Your task to perform on an android device: move a message to another label in the gmail app Image 0: 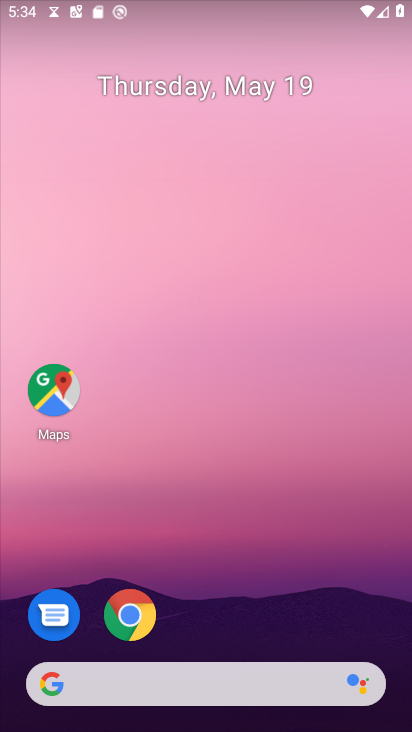
Step 0: drag from (281, 671) to (267, 15)
Your task to perform on an android device: move a message to another label in the gmail app Image 1: 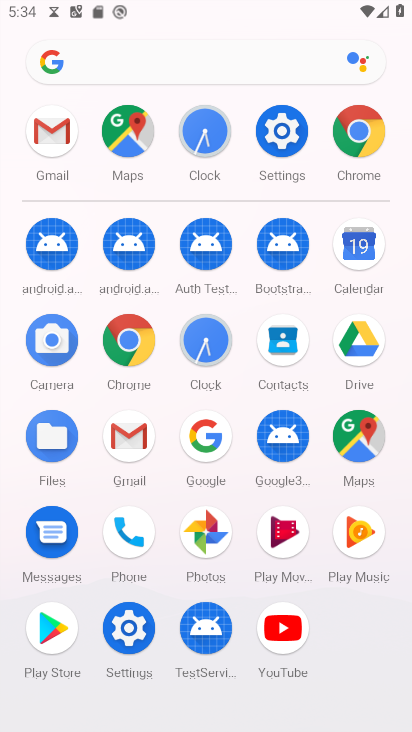
Step 1: click (131, 428)
Your task to perform on an android device: move a message to another label in the gmail app Image 2: 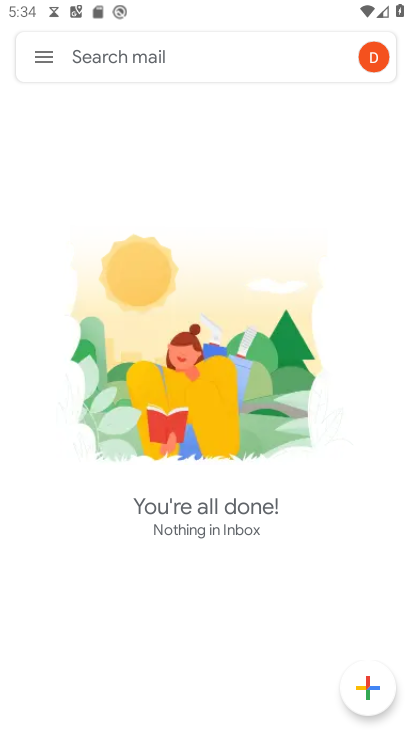
Step 2: task complete